Your task to perform on an android device: Go to calendar. Show me events next week Image 0: 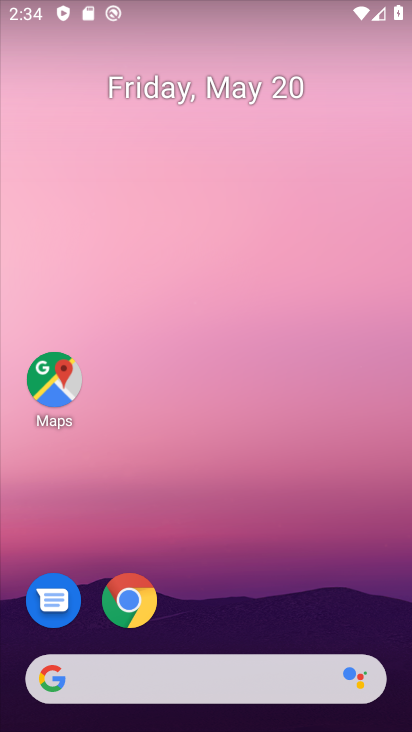
Step 0: drag from (380, 579) to (351, 217)
Your task to perform on an android device: Go to calendar. Show me events next week Image 1: 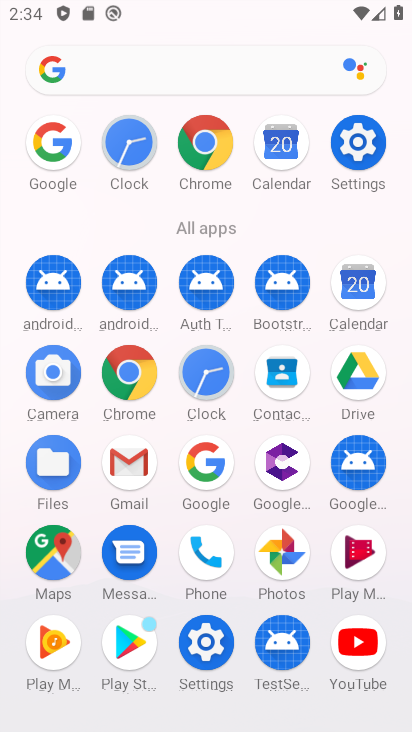
Step 1: click (357, 295)
Your task to perform on an android device: Go to calendar. Show me events next week Image 2: 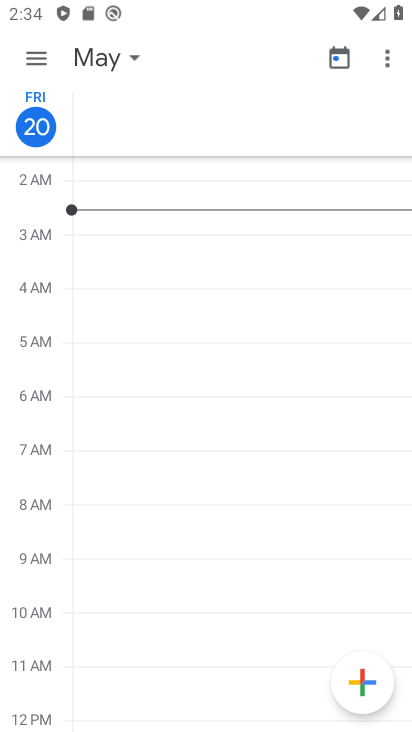
Step 2: click (134, 45)
Your task to perform on an android device: Go to calendar. Show me events next week Image 3: 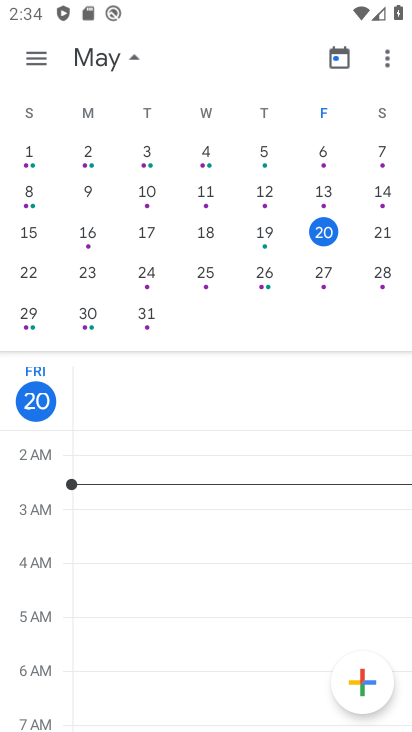
Step 3: click (81, 256)
Your task to perform on an android device: Go to calendar. Show me events next week Image 4: 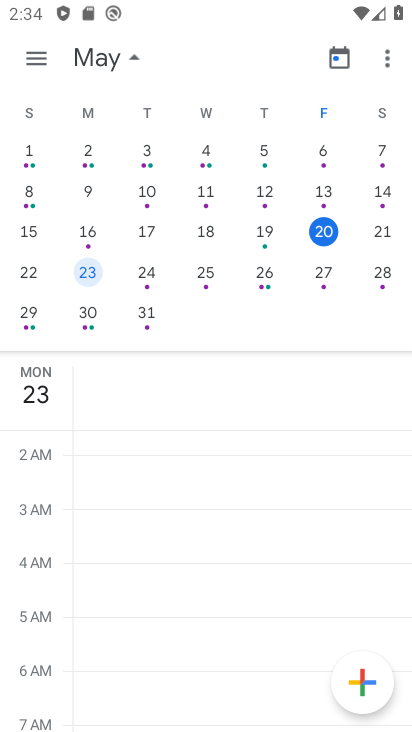
Step 4: drag from (186, 629) to (187, 448)
Your task to perform on an android device: Go to calendar. Show me events next week Image 5: 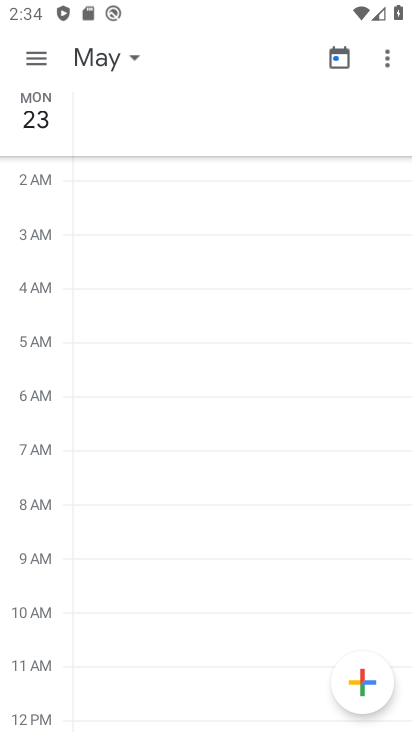
Step 5: drag from (191, 589) to (192, 500)
Your task to perform on an android device: Go to calendar. Show me events next week Image 6: 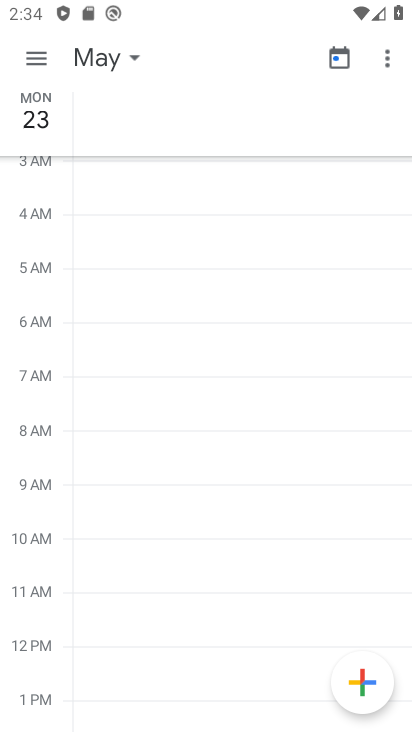
Step 6: click (36, 52)
Your task to perform on an android device: Go to calendar. Show me events next week Image 7: 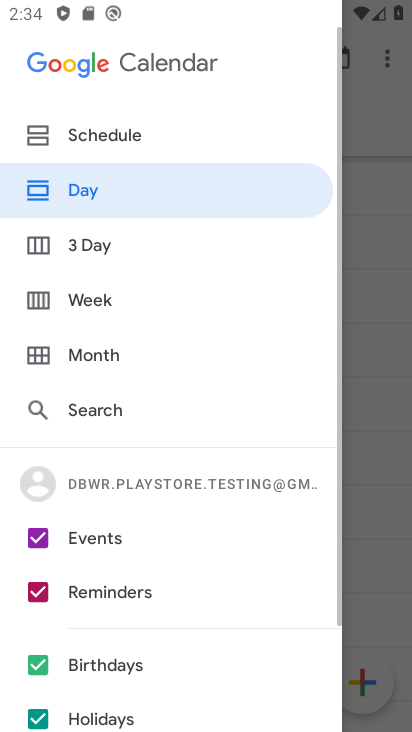
Step 7: click (108, 139)
Your task to perform on an android device: Go to calendar. Show me events next week Image 8: 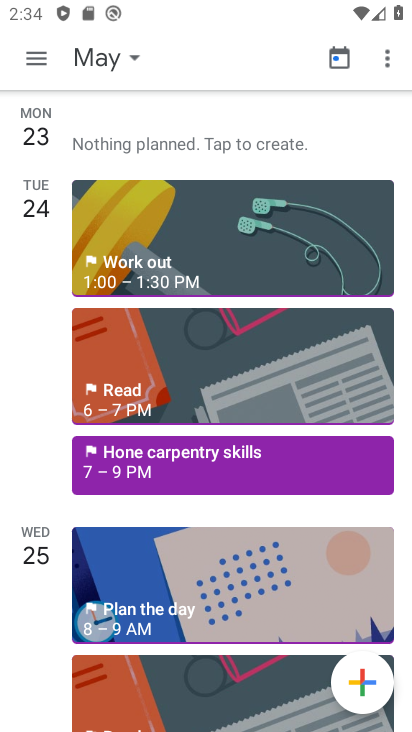
Step 8: task complete